Your task to perform on an android device: Do I have any events today? Image 0: 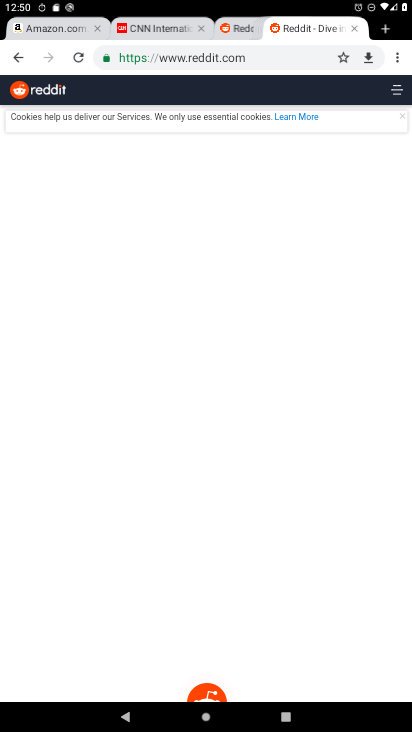
Step 0: press home button
Your task to perform on an android device: Do I have any events today? Image 1: 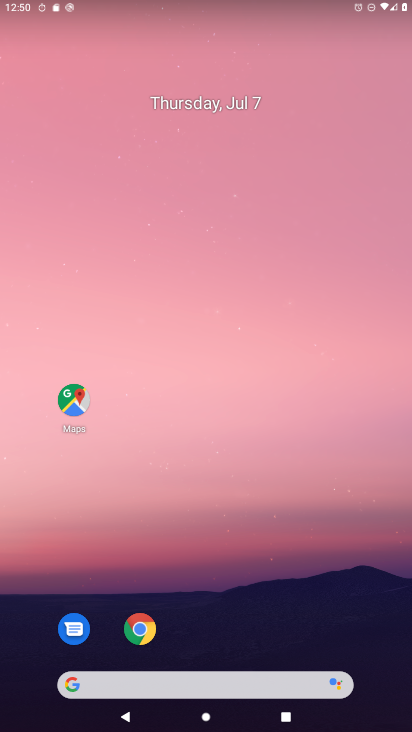
Step 1: drag from (196, 631) to (206, 162)
Your task to perform on an android device: Do I have any events today? Image 2: 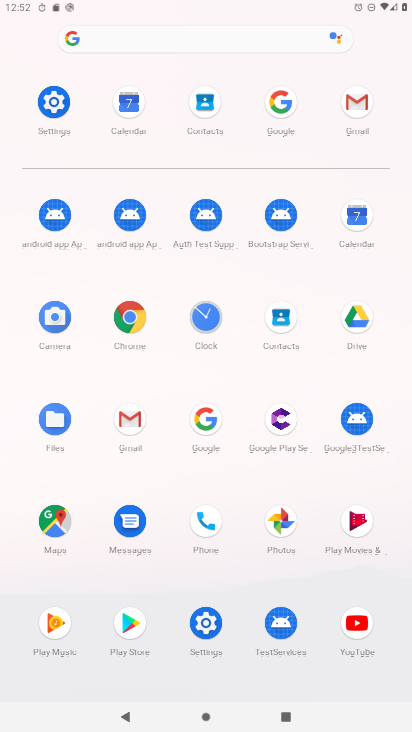
Step 2: click (343, 221)
Your task to perform on an android device: Do I have any events today? Image 3: 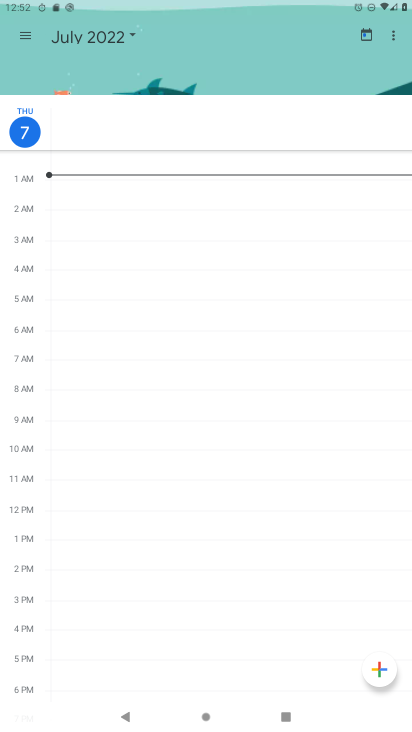
Step 3: drag from (148, 194) to (202, 516)
Your task to perform on an android device: Do I have any events today? Image 4: 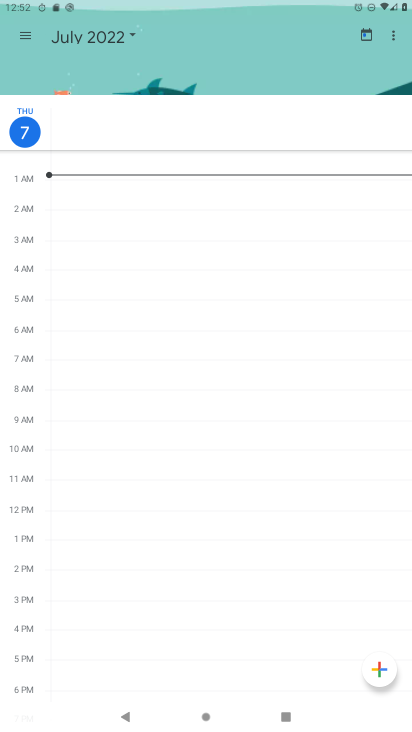
Step 4: click (25, 31)
Your task to perform on an android device: Do I have any events today? Image 5: 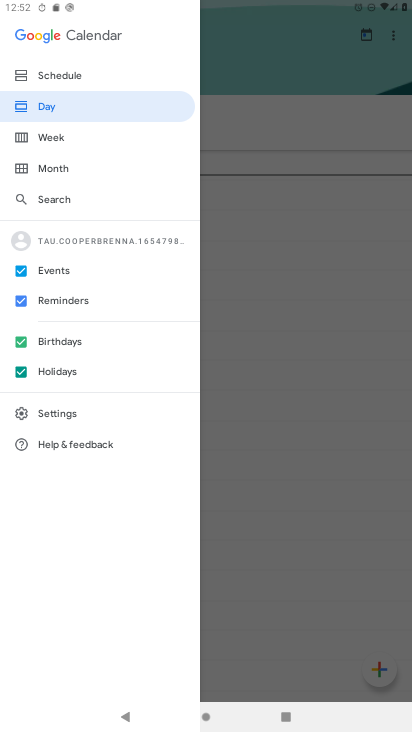
Step 5: click (73, 79)
Your task to perform on an android device: Do I have any events today? Image 6: 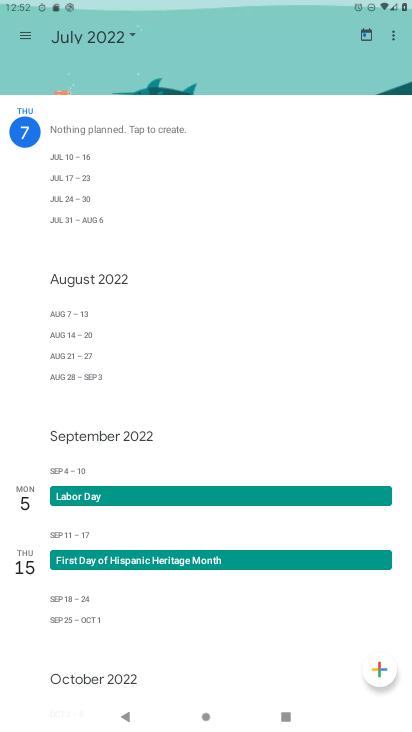
Step 6: task complete